Your task to perform on an android device: Open network settings Image 0: 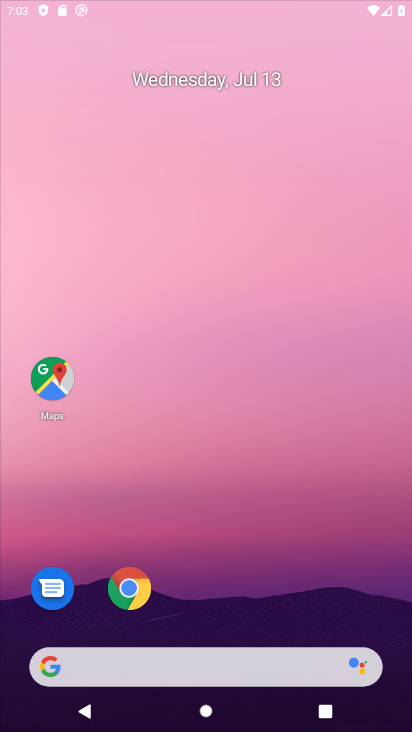
Step 0: click (125, 584)
Your task to perform on an android device: Open network settings Image 1: 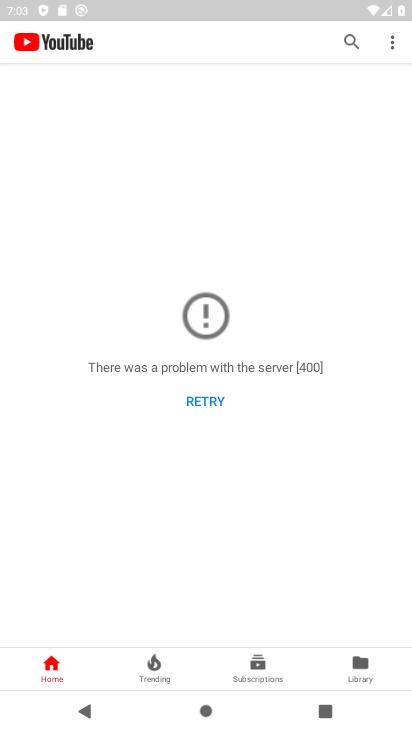
Step 1: press home button
Your task to perform on an android device: Open network settings Image 2: 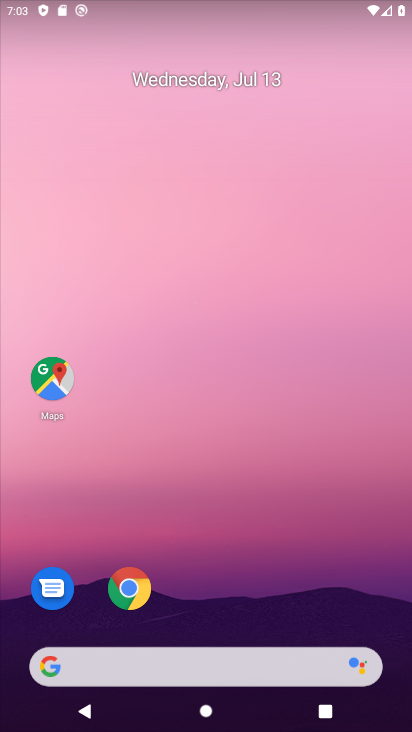
Step 2: drag from (235, 530) to (169, 81)
Your task to perform on an android device: Open network settings Image 3: 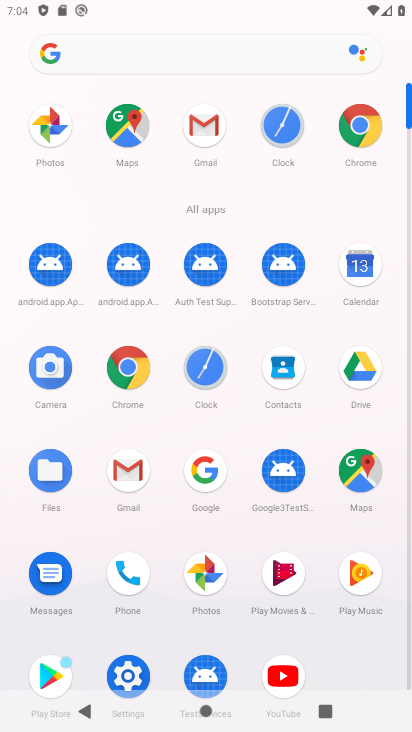
Step 3: click (128, 668)
Your task to perform on an android device: Open network settings Image 4: 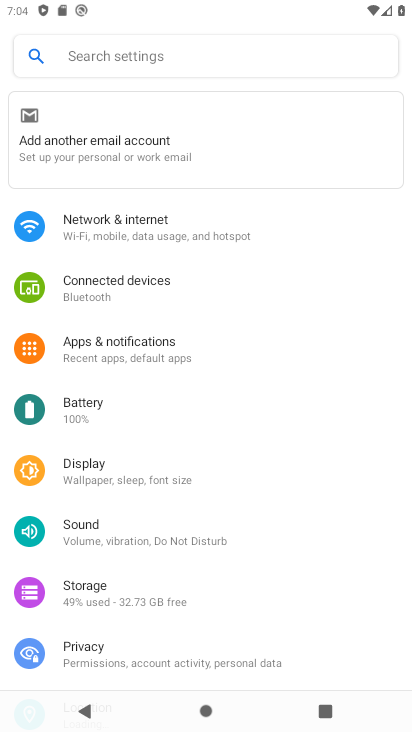
Step 4: click (85, 225)
Your task to perform on an android device: Open network settings Image 5: 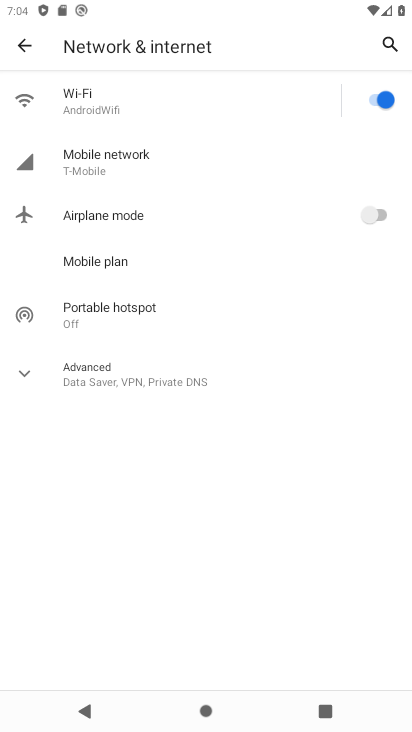
Step 5: task complete